Your task to perform on an android device: Open the web browser Image 0: 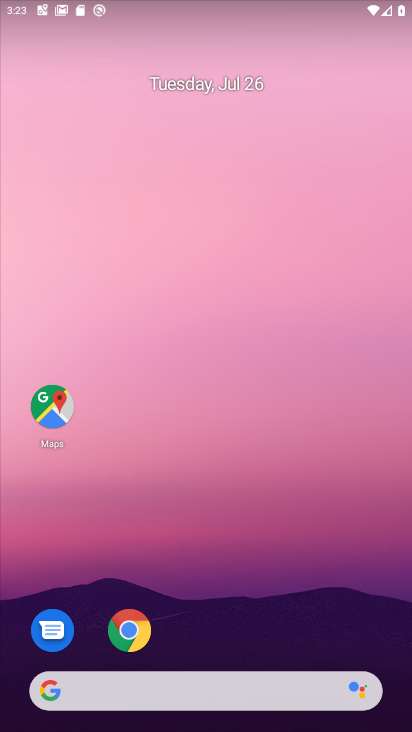
Step 0: click (219, 696)
Your task to perform on an android device: Open the web browser Image 1: 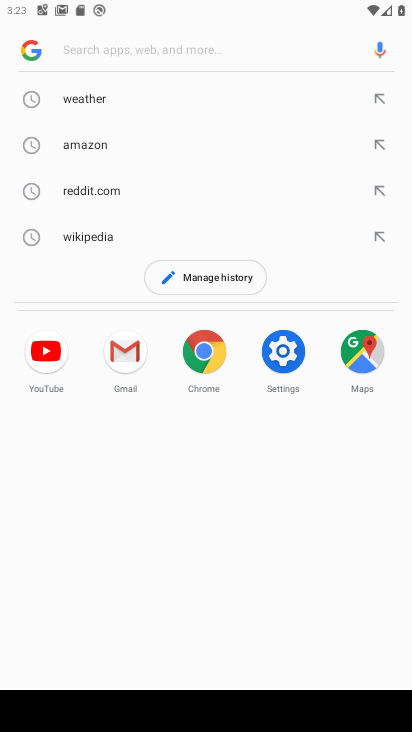
Step 1: task complete